Your task to perform on an android device: uninstall "Lyft - Rideshare, Bikes, Scooters & Transit" Image 0: 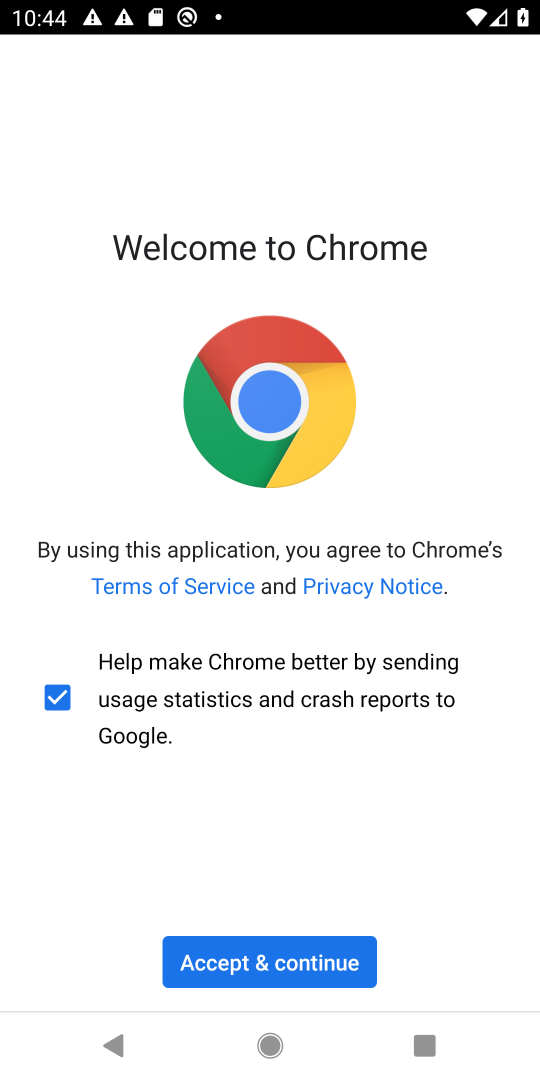
Step 0: drag from (254, 825) to (464, 561)
Your task to perform on an android device: uninstall "Lyft - Rideshare, Bikes, Scooters & Transit" Image 1: 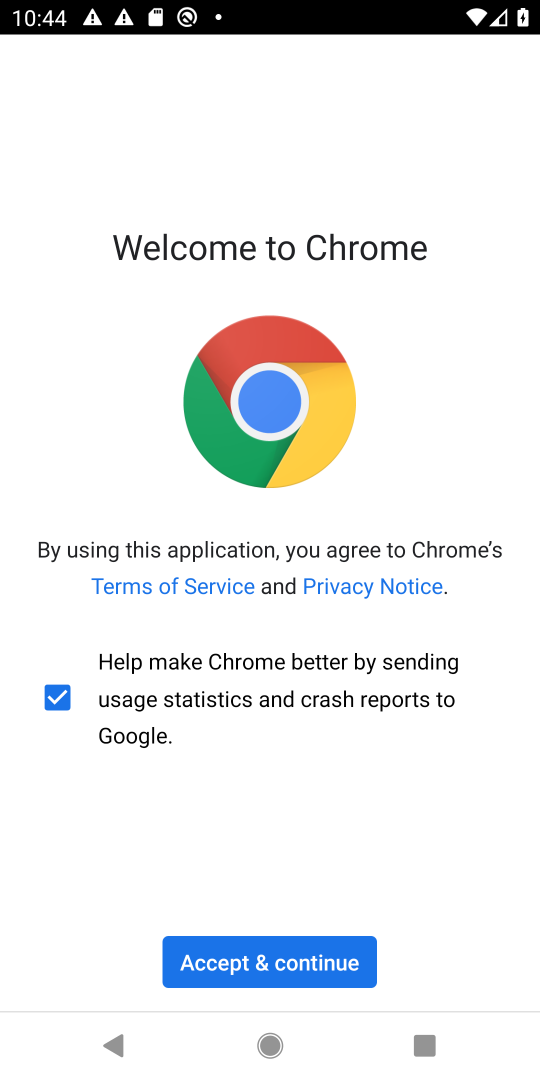
Step 1: press home button
Your task to perform on an android device: uninstall "Lyft - Rideshare, Bikes, Scooters & Transit" Image 2: 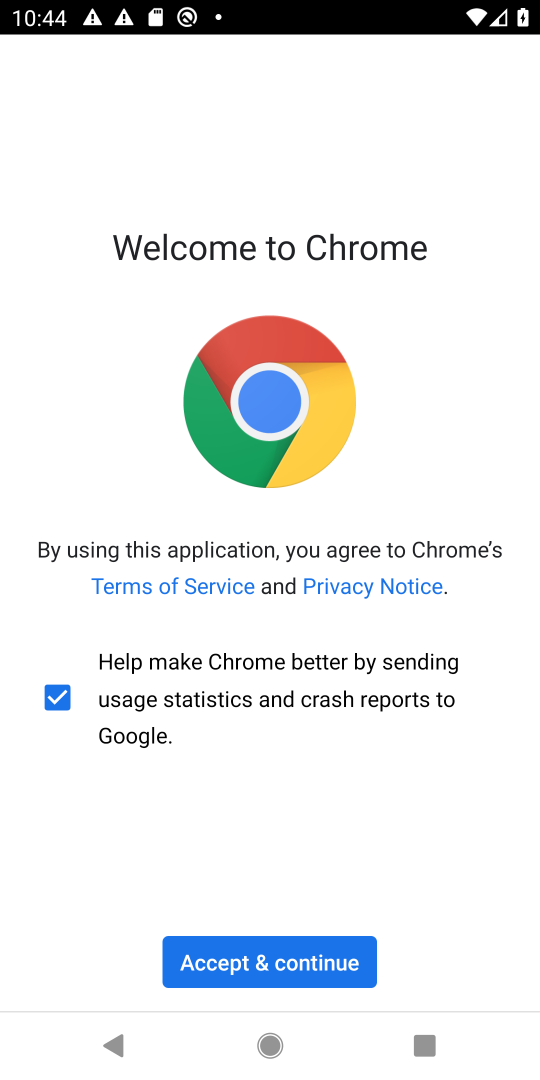
Step 2: drag from (533, 777) to (263, 172)
Your task to perform on an android device: uninstall "Lyft - Rideshare, Bikes, Scooters & Transit" Image 3: 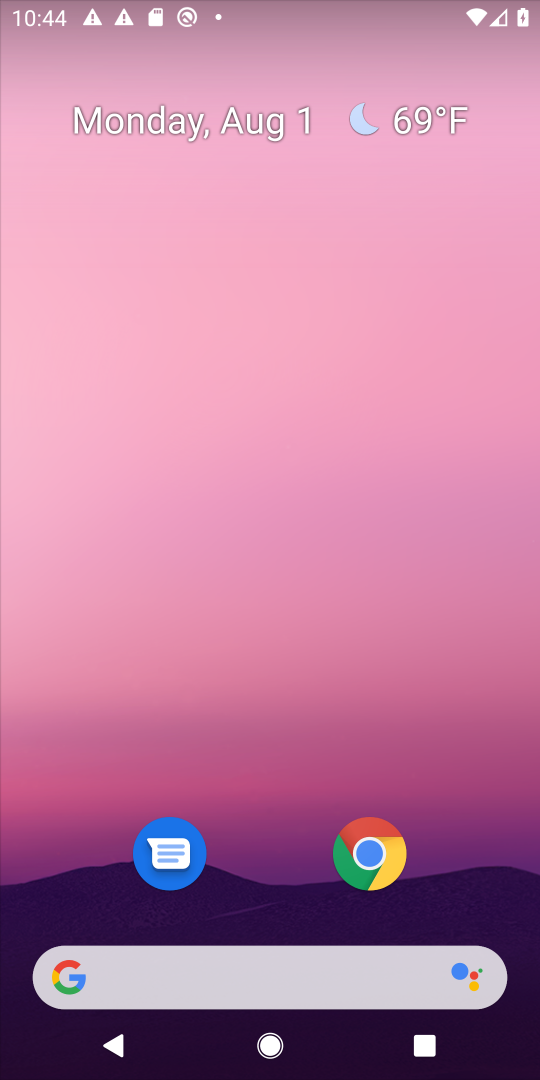
Step 3: drag from (255, 949) to (334, 118)
Your task to perform on an android device: uninstall "Lyft - Rideshare, Bikes, Scooters & Transit" Image 4: 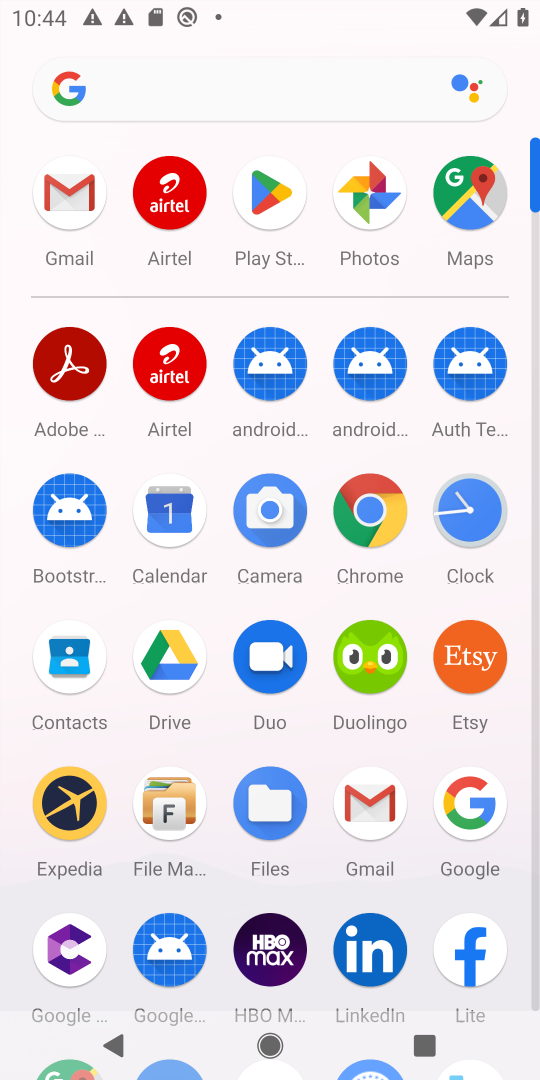
Step 4: click (267, 187)
Your task to perform on an android device: uninstall "Lyft - Rideshare, Bikes, Scooters & Transit" Image 5: 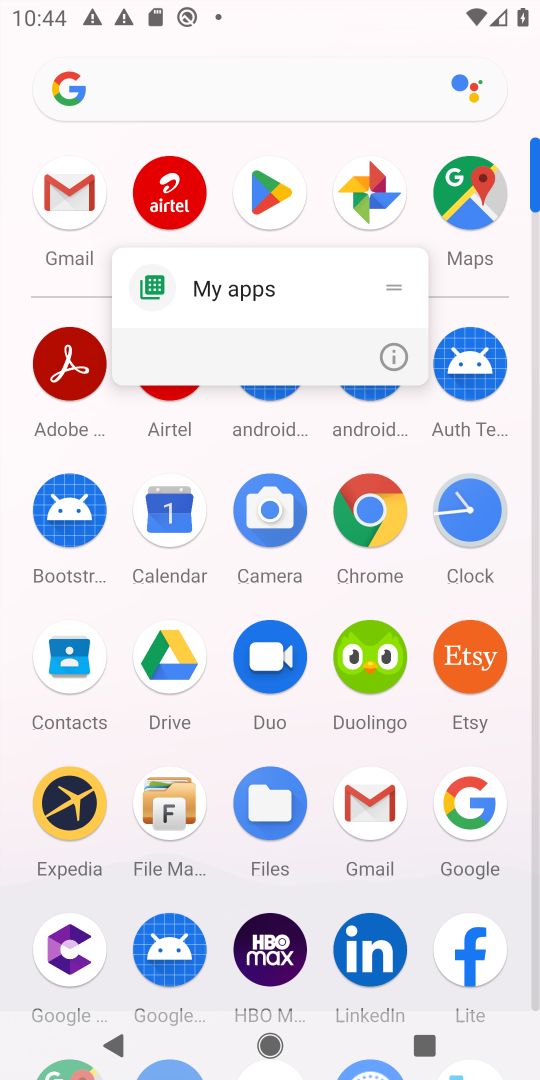
Step 5: click (394, 356)
Your task to perform on an android device: uninstall "Lyft - Rideshare, Bikes, Scooters & Transit" Image 6: 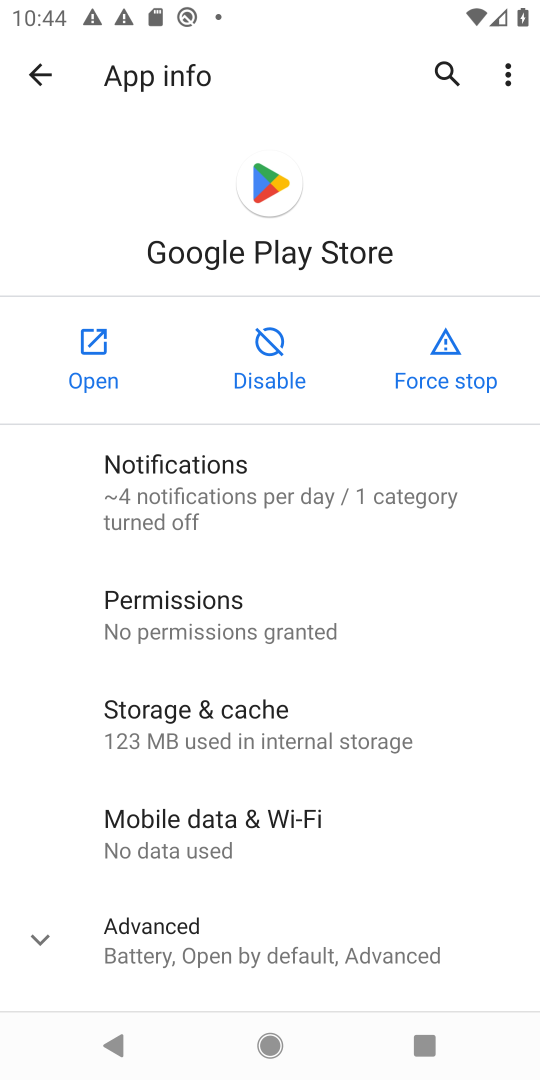
Step 6: click (98, 354)
Your task to perform on an android device: uninstall "Lyft - Rideshare, Bikes, Scooters & Transit" Image 7: 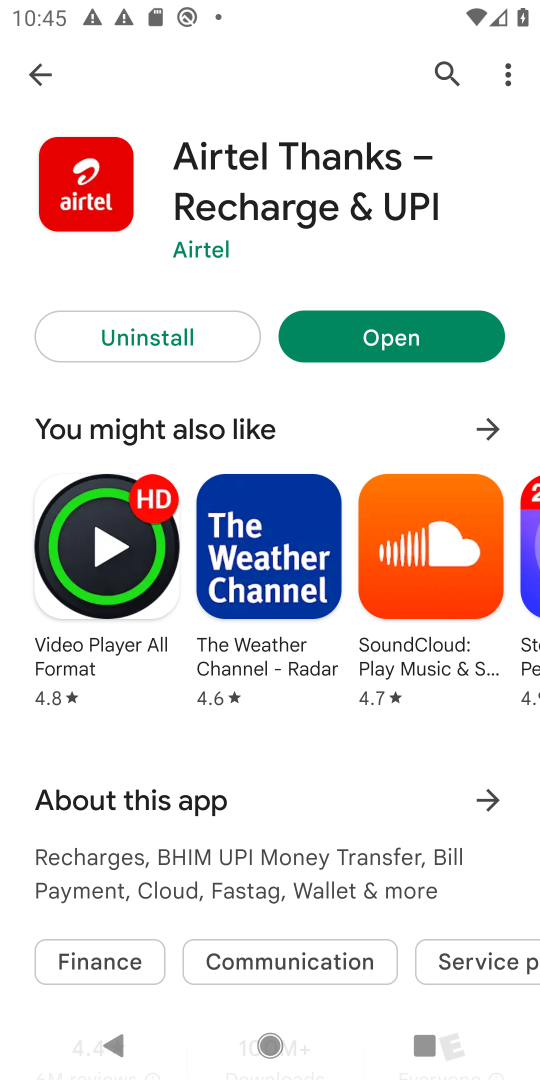
Step 7: click (431, 69)
Your task to perform on an android device: uninstall "Lyft - Rideshare, Bikes, Scooters & Transit" Image 8: 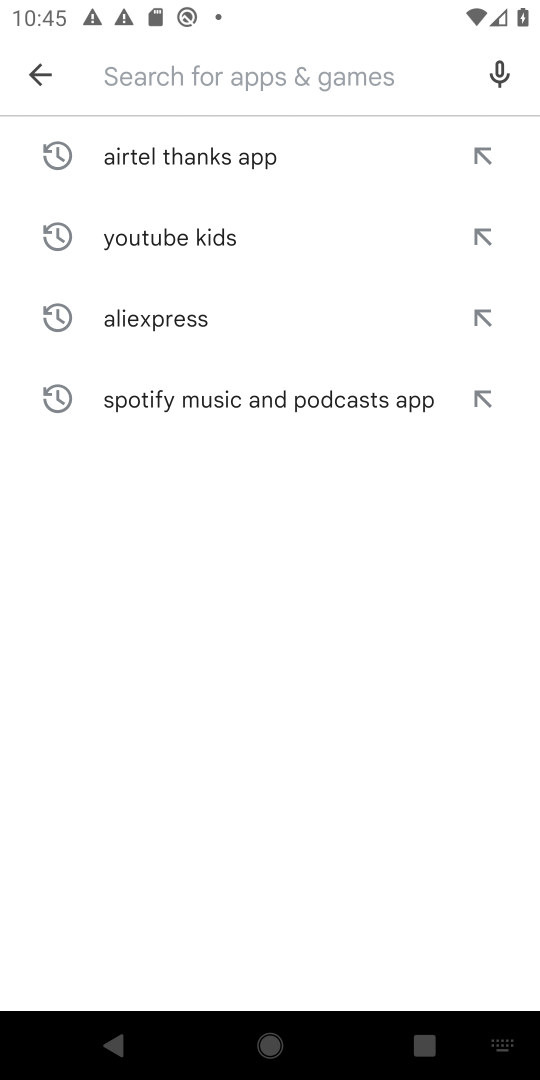
Step 8: type "Lyft - Rideshare, Bikes, Scooters & Transit"
Your task to perform on an android device: uninstall "Lyft - Rideshare, Bikes, Scooters & Transit" Image 9: 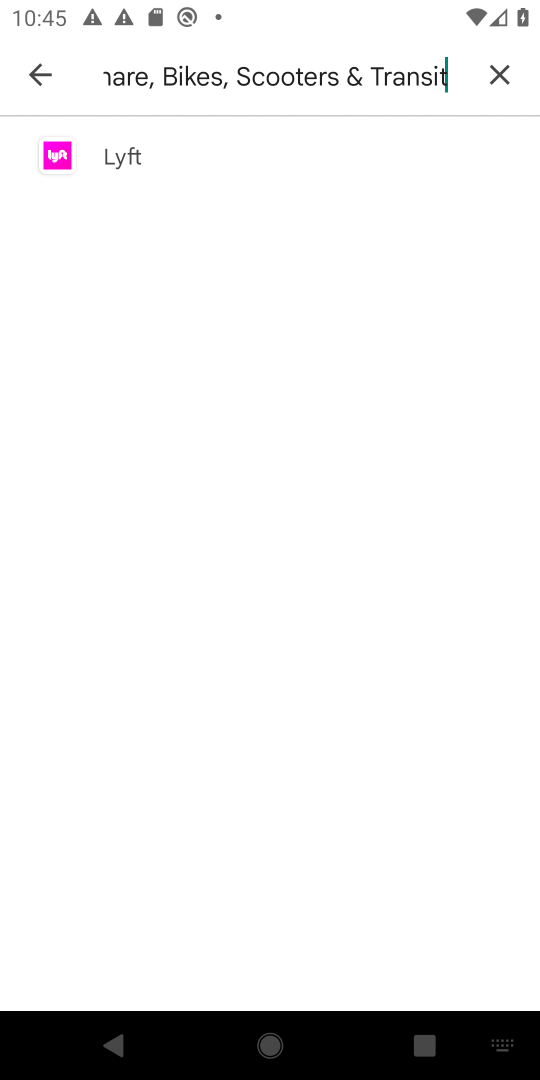
Step 9: type ""
Your task to perform on an android device: uninstall "Lyft - Rideshare, Bikes, Scooters & Transit" Image 10: 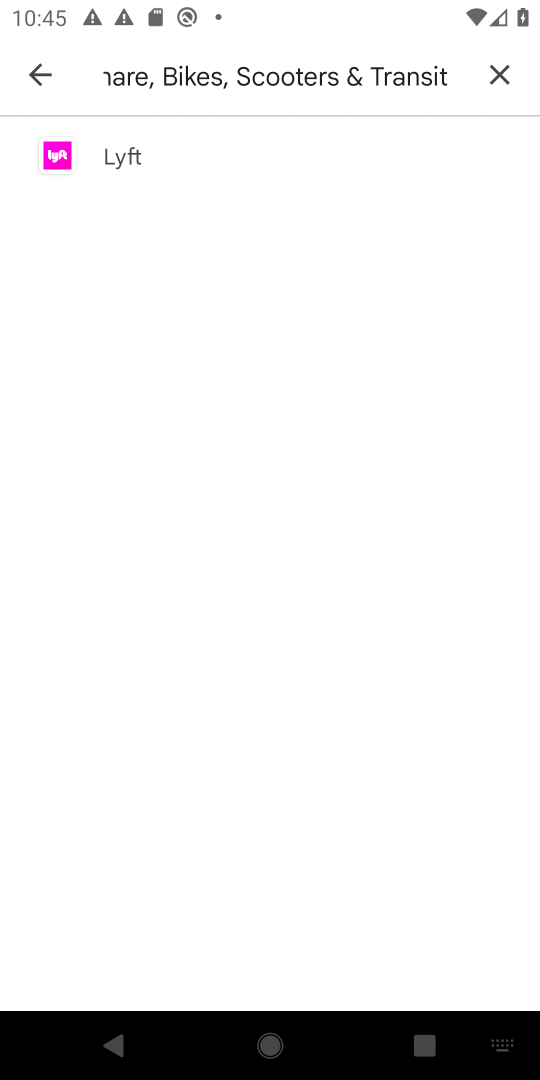
Step 10: click (134, 153)
Your task to perform on an android device: uninstall "Lyft - Rideshare, Bikes, Scooters & Transit" Image 11: 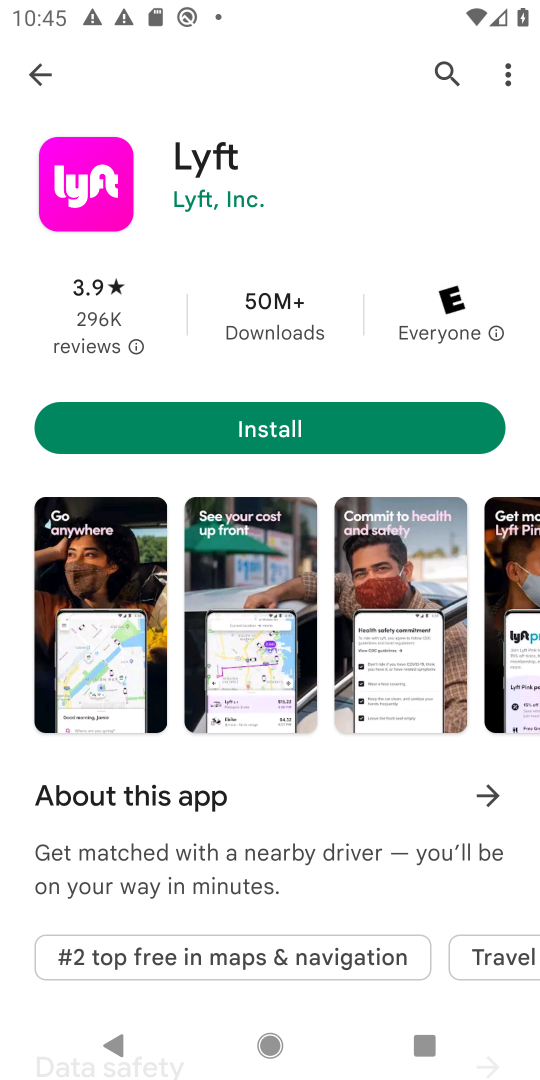
Step 11: task complete